Your task to perform on an android device: show emergency info Image 0: 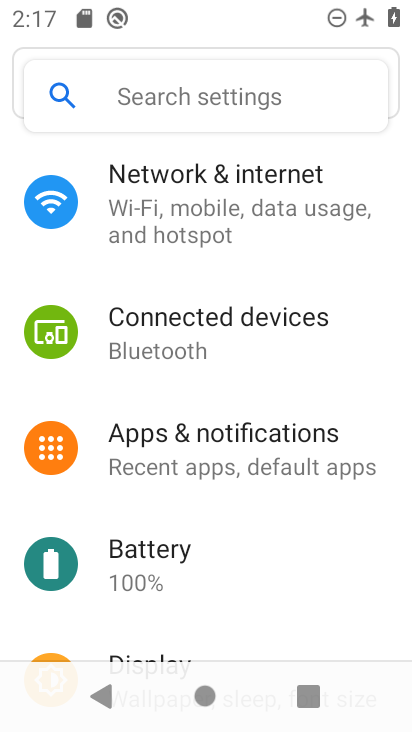
Step 0: press home button
Your task to perform on an android device: show emergency info Image 1: 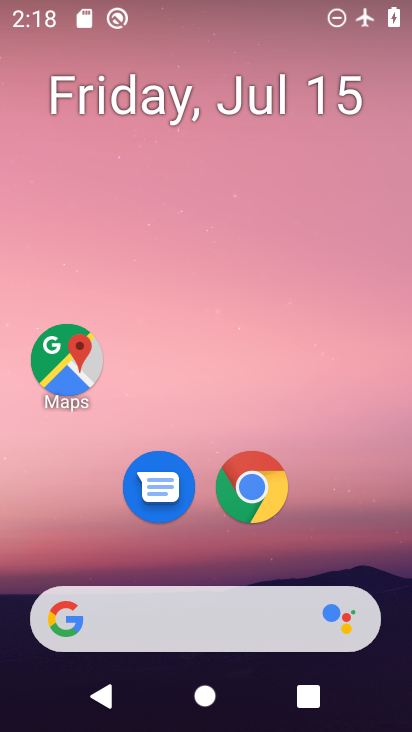
Step 1: drag from (236, 638) to (285, 242)
Your task to perform on an android device: show emergency info Image 2: 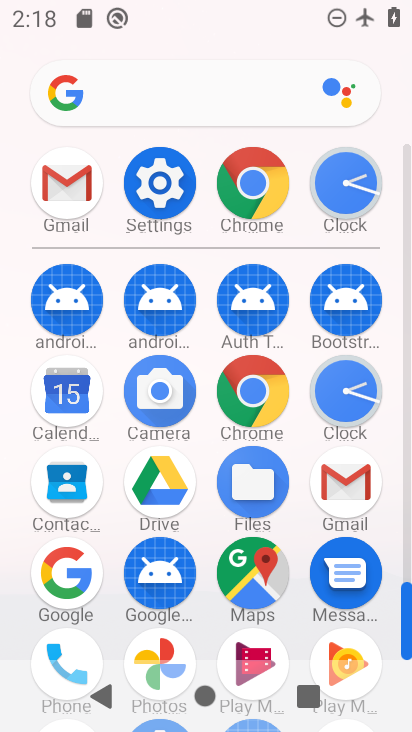
Step 2: click (169, 182)
Your task to perform on an android device: show emergency info Image 3: 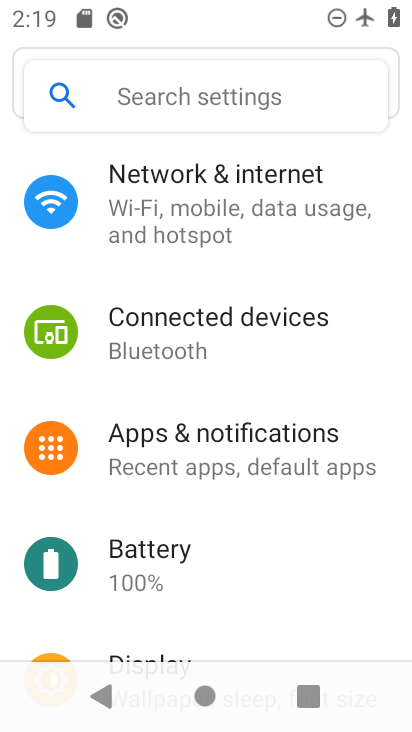
Step 3: drag from (256, 530) to (274, 38)
Your task to perform on an android device: show emergency info Image 4: 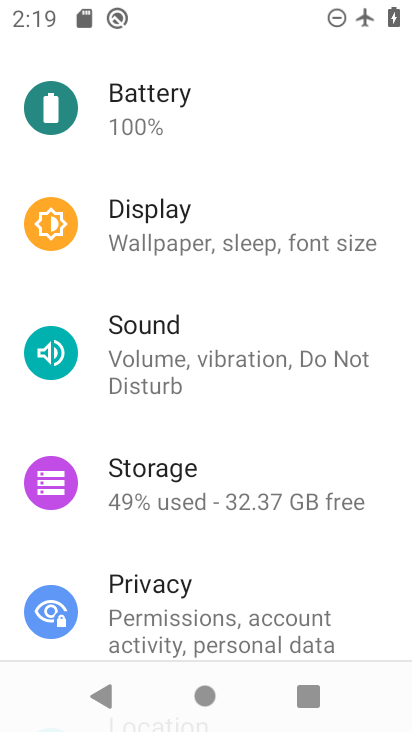
Step 4: drag from (178, 561) to (271, 121)
Your task to perform on an android device: show emergency info Image 5: 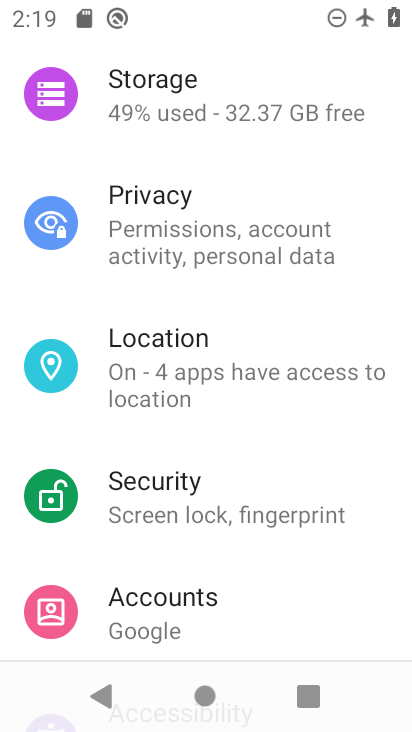
Step 5: drag from (184, 534) to (322, 115)
Your task to perform on an android device: show emergency info Image 6: 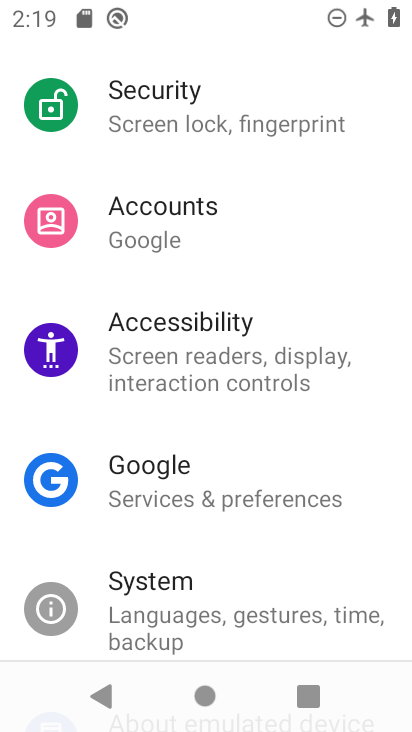
Step 6: drag from (180, 592) to (254, 226)
Your task to perform on an android device: show emergency info Image 7: 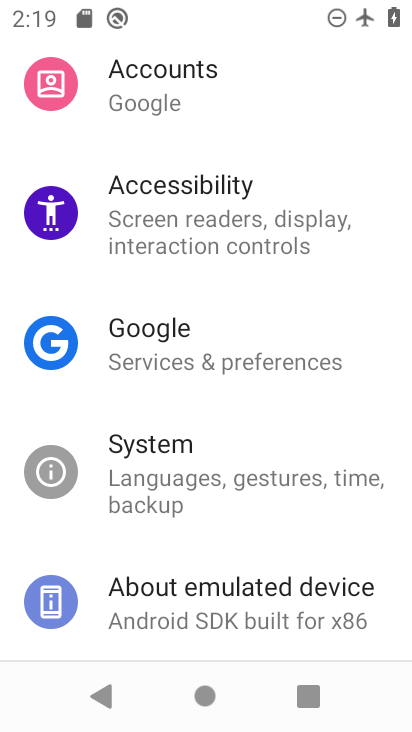
Step 7: click (203, 609)
Your task to perform on an android device: show emergency info Image 8: 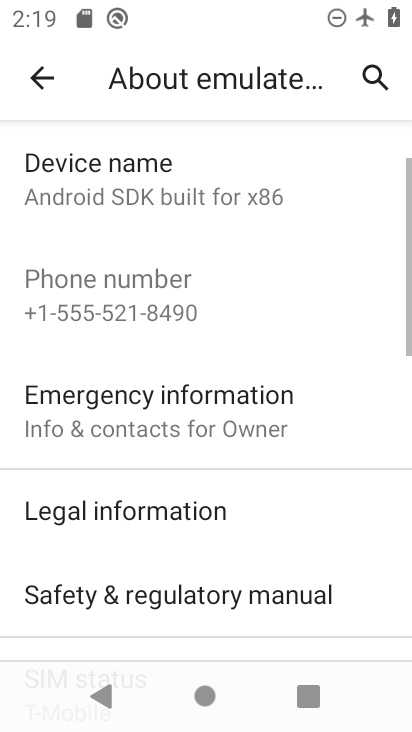
Step 8: click (213, 427)
Your task to perform on an android device: show emergency info Image 9: 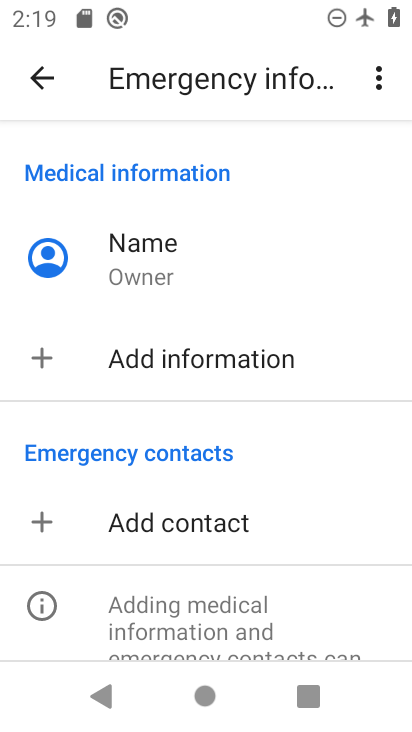
Step 9: task complete